Your task to perform on an android device: turn off translation in the chrome app Image 0: 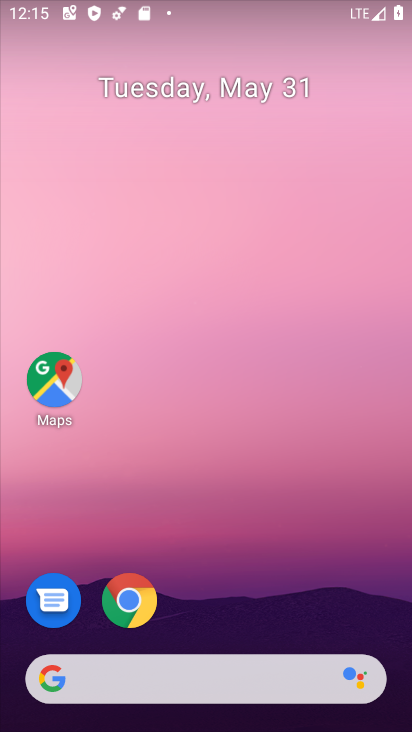
Step 0: click (131, 602)
Your task to perform on an android device: turn off translation in the chrome app Image 1: 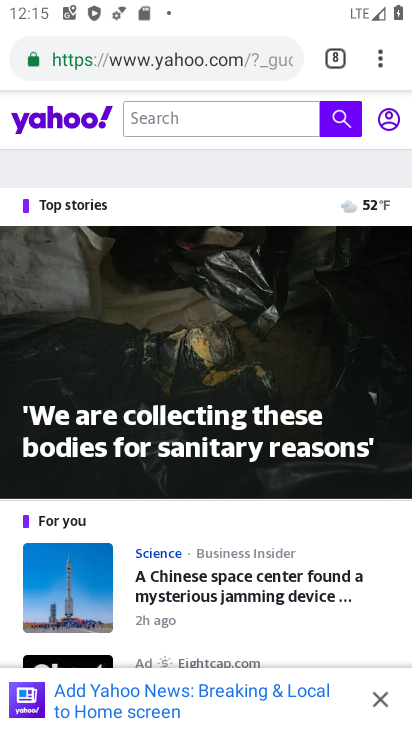
Step 1: click (381, 64)
Your task to perform on an android device: turn off translation in the chrome app Image 2: 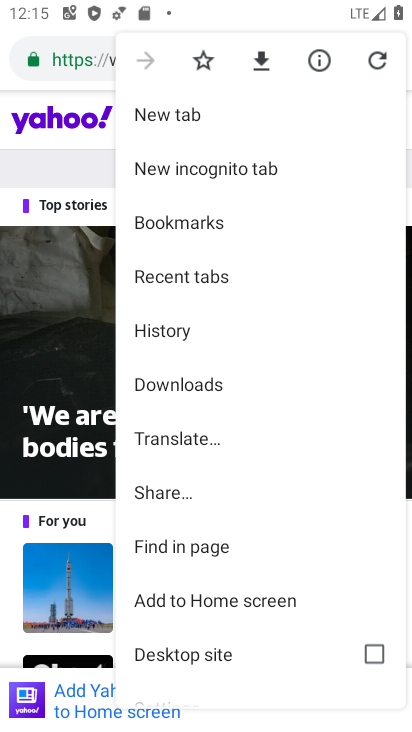
Step 2: drag from (187, 664) to (166, 210)
Your task to perform on an android device: turn off translation in the chrome app Image 3: 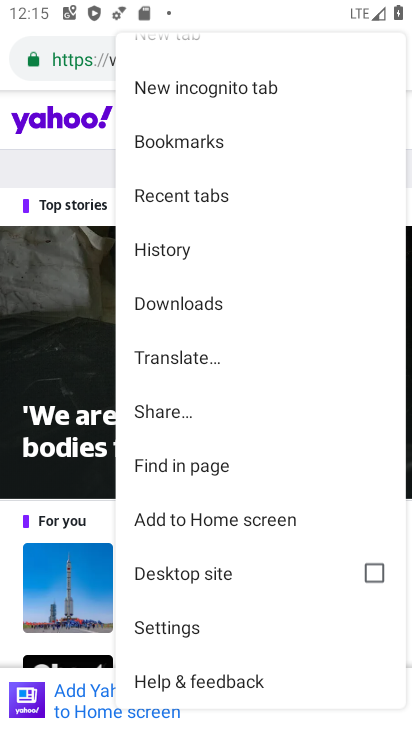
Step 3: click (170, 625)
Your task to perform on an android device: turn off translation in the chrome app Image 4: 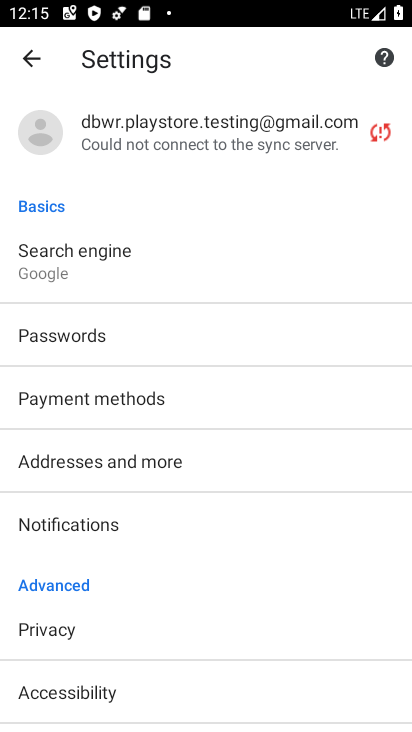
Step 4: drag from (148, 701) to (131, 314)
Your task to perform on an android device: turn off translation in the chrome app Image 5: 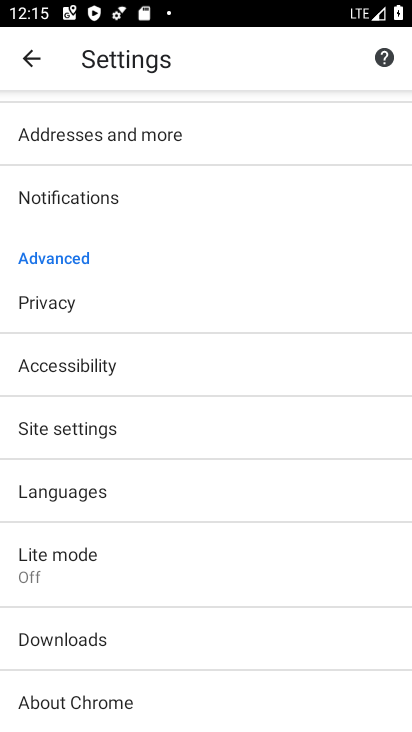
Step 5: click (62, 490)
Your task to perform on an android device: turn off translation in the chrome app Image 6: 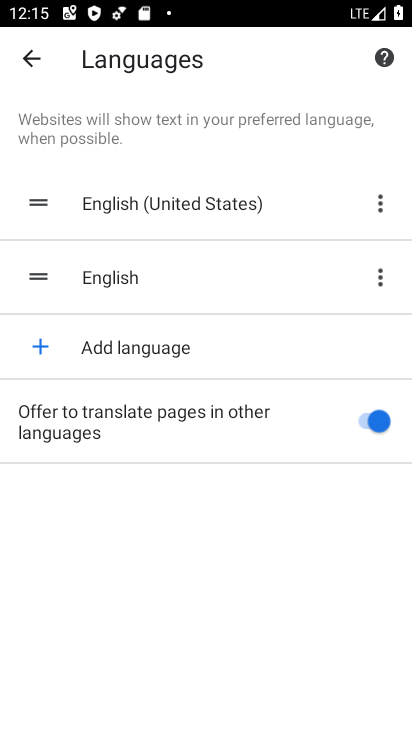
Step 6: click (363, 419)
Your task to perform on an android device: turn off translation in the chrome app Image 7: 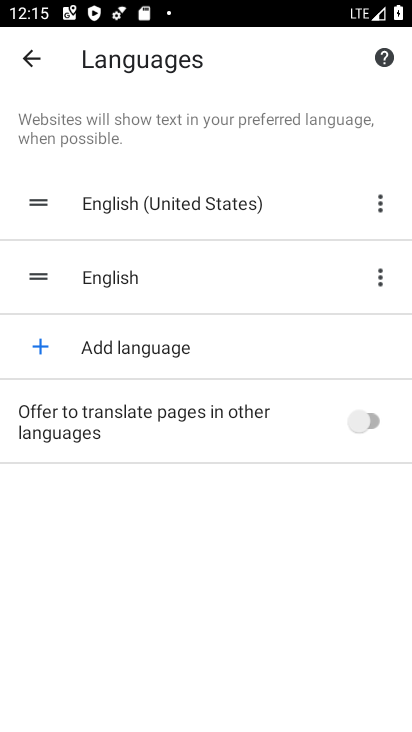
Step 7: task complete